Your task to perform on an android device: Open battery settings Image 0: 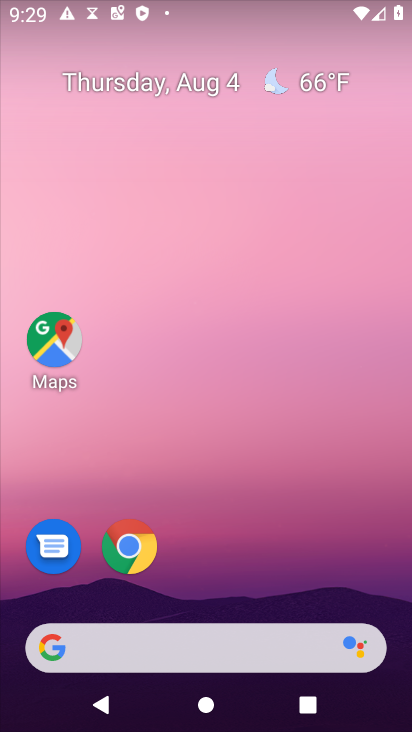
Step 0: drag from (229, 606) to (239, 108)
Your task to perform on an android device: Open battery settings Image 1: 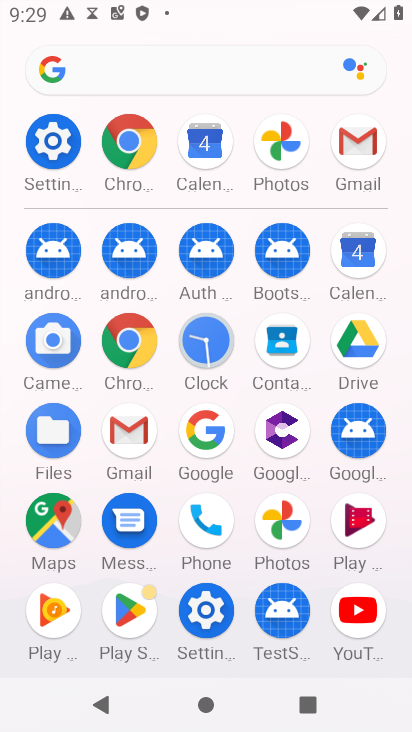
Step 1: click (53, 132)
Your task to perform on an android device: Open battery settings Image 2: 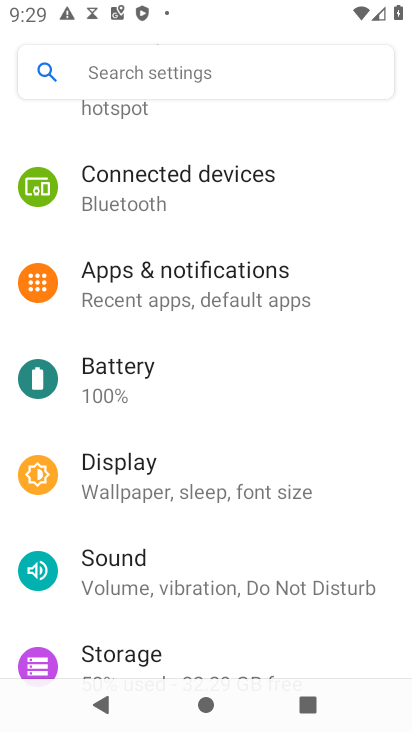
Step 2: click (115, 381)
Your task to perform on an android device: Open battery settings Image 3: 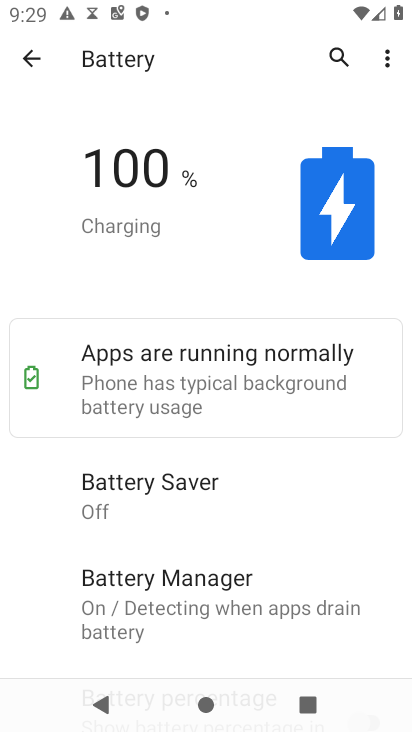
Step 3: task complete